Your task to perform on an android device: Open Maps and search for coffee Image 0: 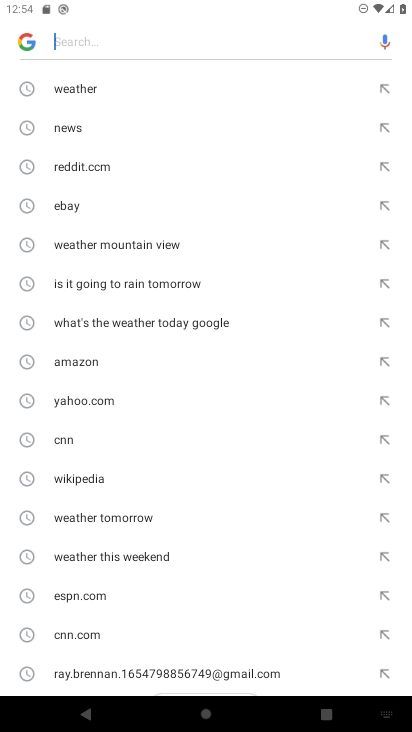
Step 0: press home button
Your task to perform on an android device: Open Maps and search for coffee Image 1: 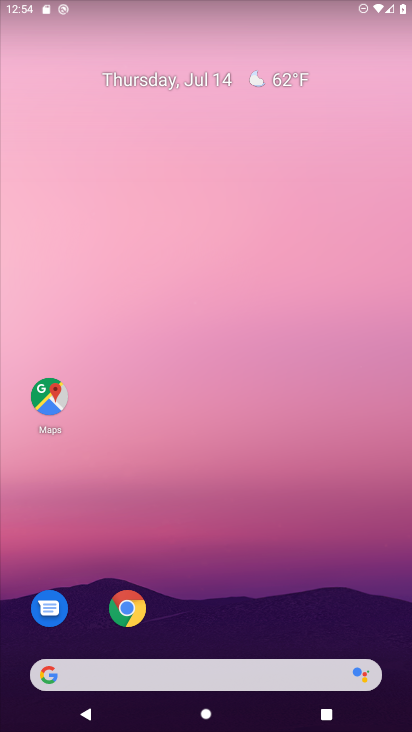
Step 1: drag from (231, 725) to (218, 75)
Your task to perform on an android device: Open Maps and search for coffee Image 2: 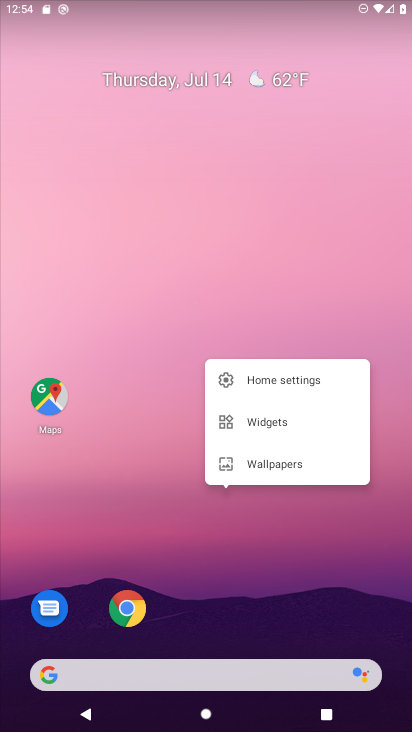
Step 2: click (47, 395)
Your task to perform on an android device: Open Maps and search for coffee Image 3: 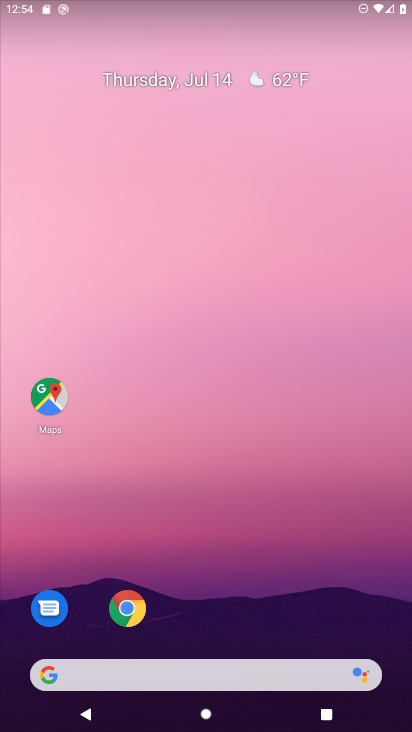
Step 3: click (46, 394)
Your task to perform on an android device: Open Maps and search for coffee Image 4: 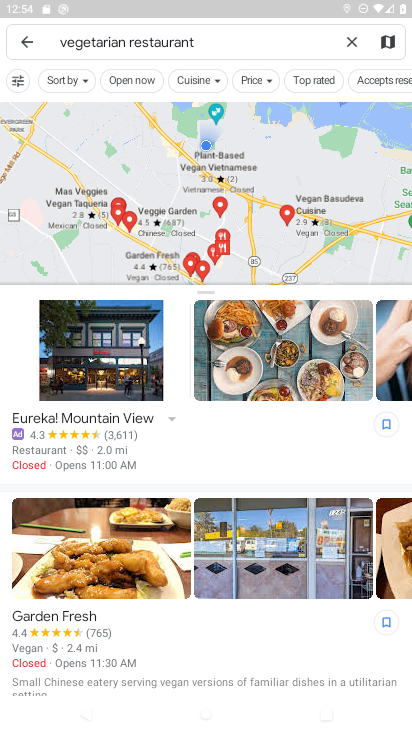
Step 4: click (354, 42)
Your task to perform on an android device: Open Maps and search for coffee Image 5: 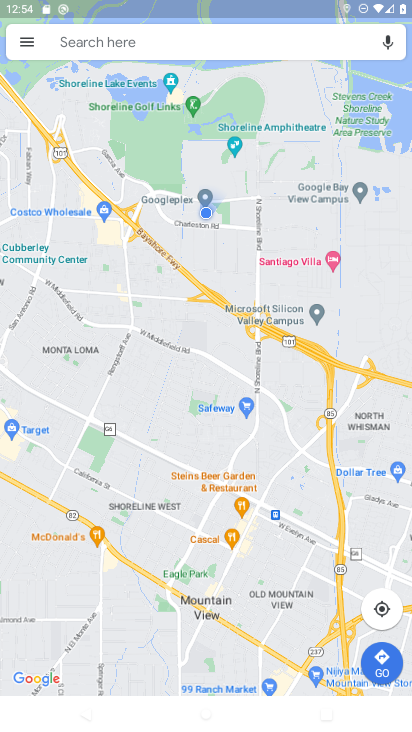
Step 5: click (170, 46)
Your task to perform on an android device: Open Maps and search for coffee Image 6: 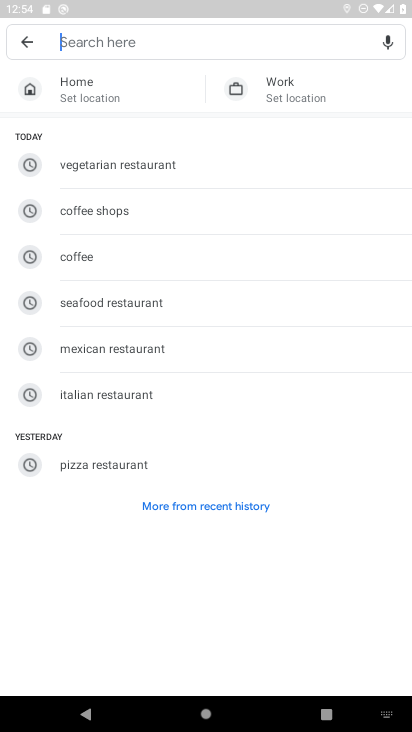
Step 6: type "coffee"
Your task to perform on an android device: Open Maps and search for coffee Image 7: 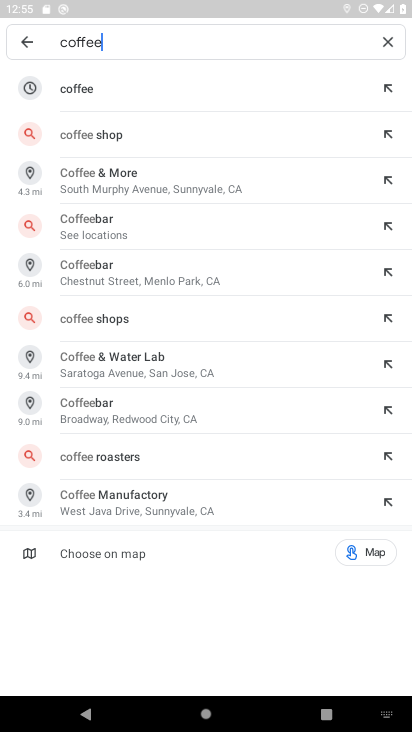
Step 7: click (74, 84)
Your task to perform on an android device: Open Maps and search for coffee Image 8: 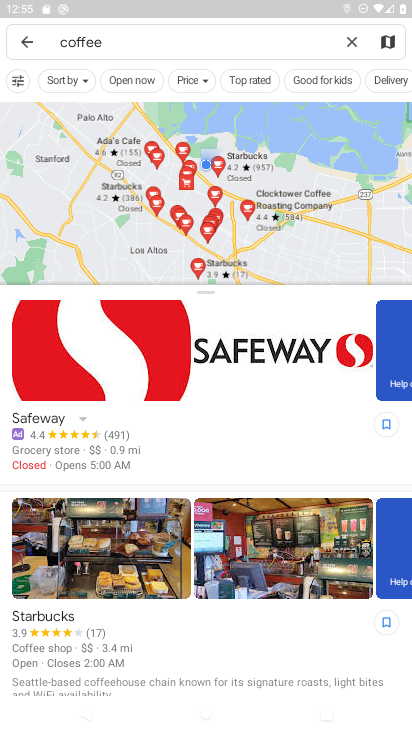
Step 8: task complete